Your task to perform on an android device: open app "Spotify" Image 0: 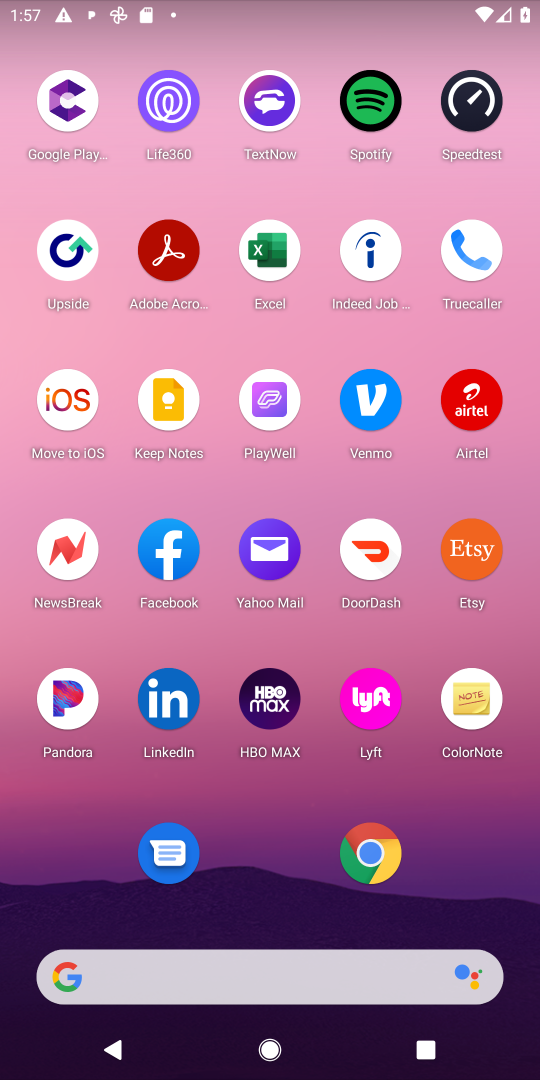
Step 0: drag from (171, 895) to (164, 288)
Your task to perform on an android device: open app "Spotify" Image 1: 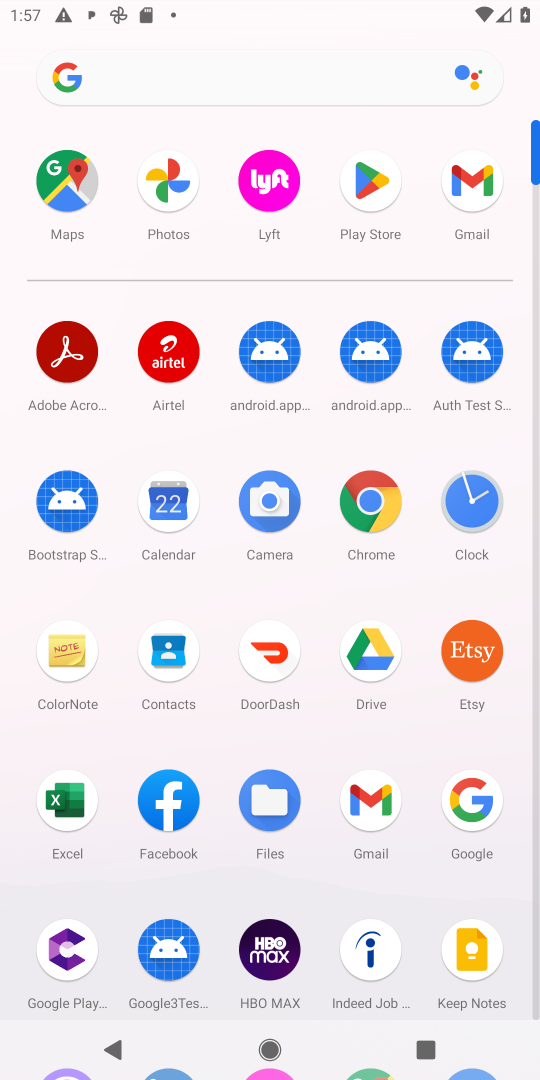
Step 1: click (360, 153)
Your task to perform on an android device: open app "Spotify" Image 2: 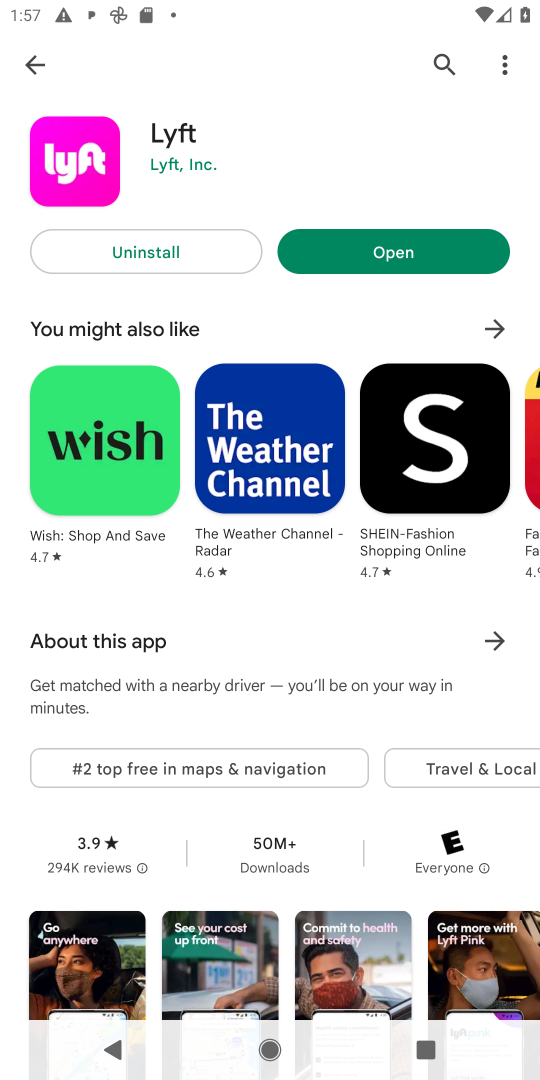
Step 2: click (17, 73)
Your task to perform on an android device: open app "Spotify" Image 3: 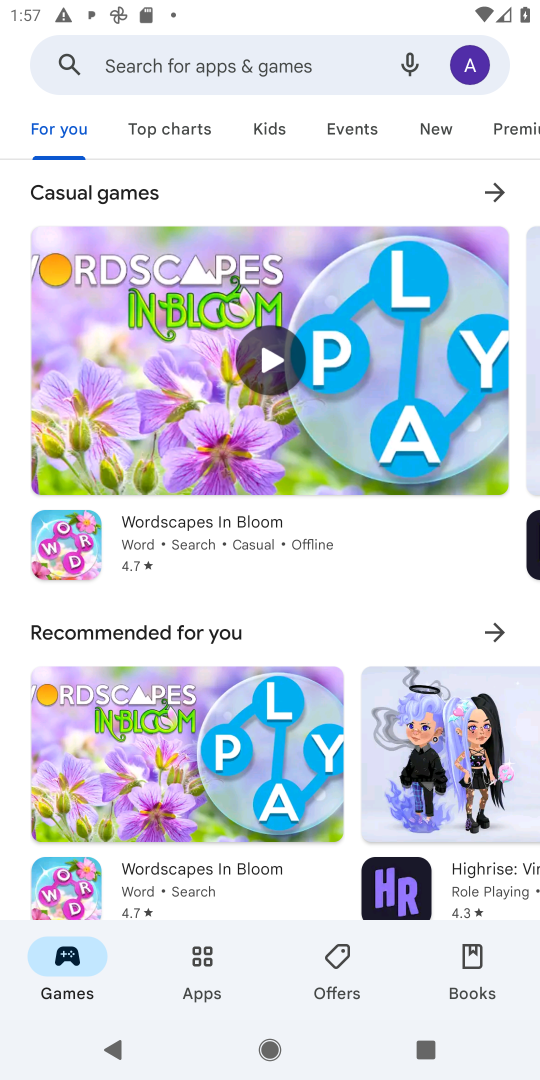
Step 3: click (213, 63)
Your task to perform on an android device: open app "Spotify" Image 4: 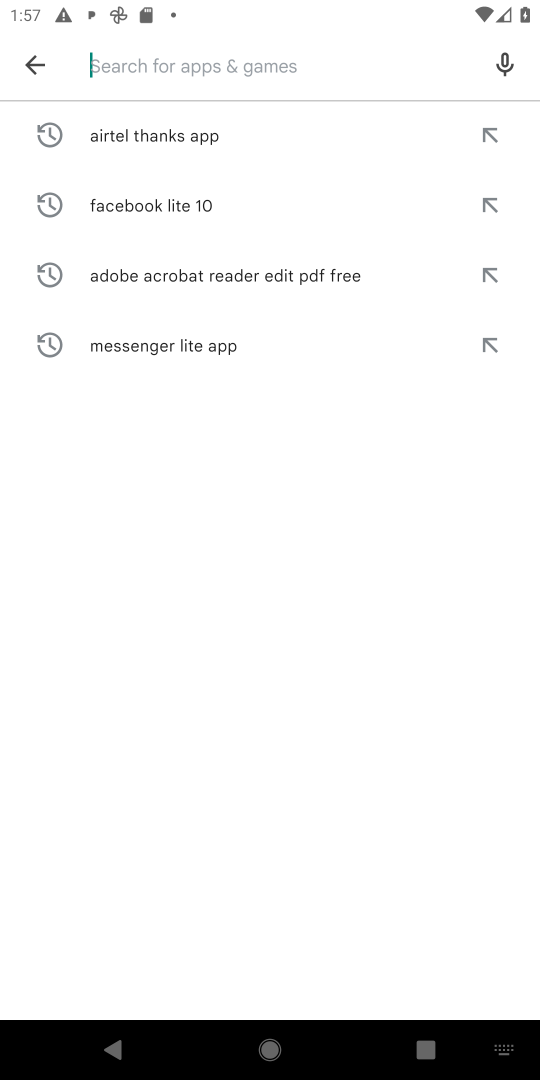
Step 4: type "Spotify "
Your task to perform on an android device: open app "Spotify" Image 5: 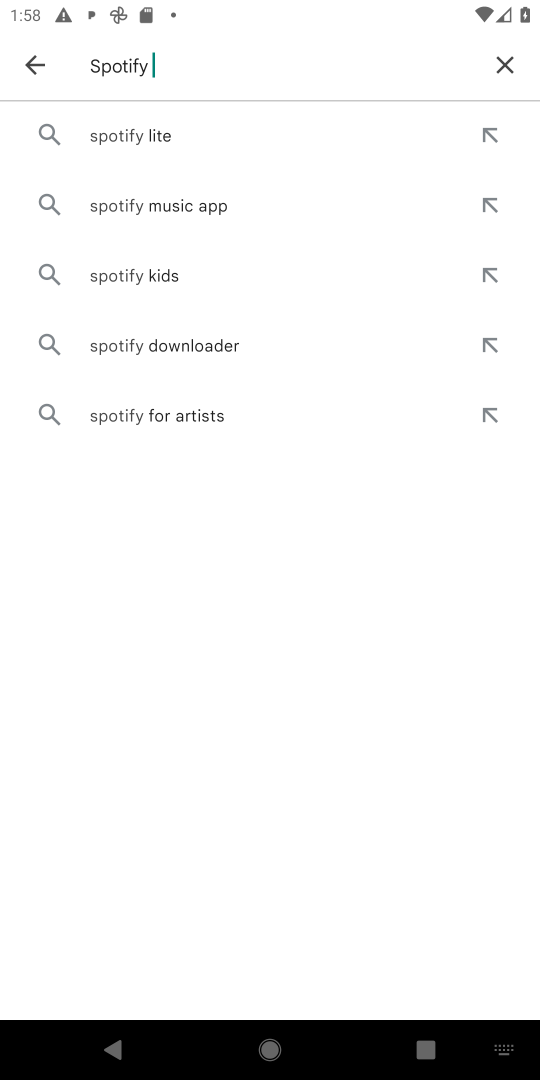
Step 5: drag from (178, 262) to (3, 194)
Your task to perform on an android device: open app "Spotify" Image 6: 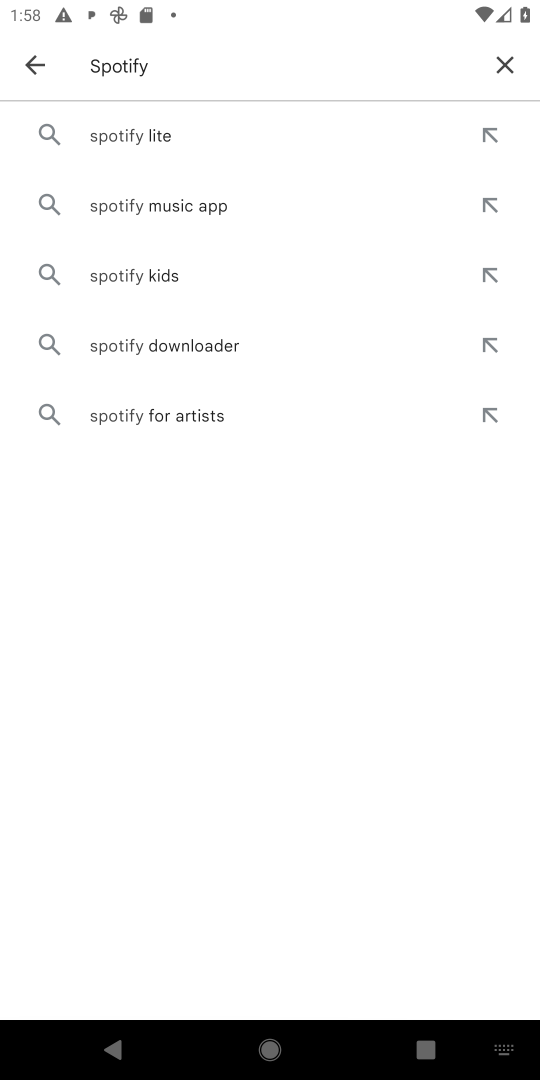
Step 6: click (108, 200)
Your task to perform on an android device: open app "Spotify" Image 7: 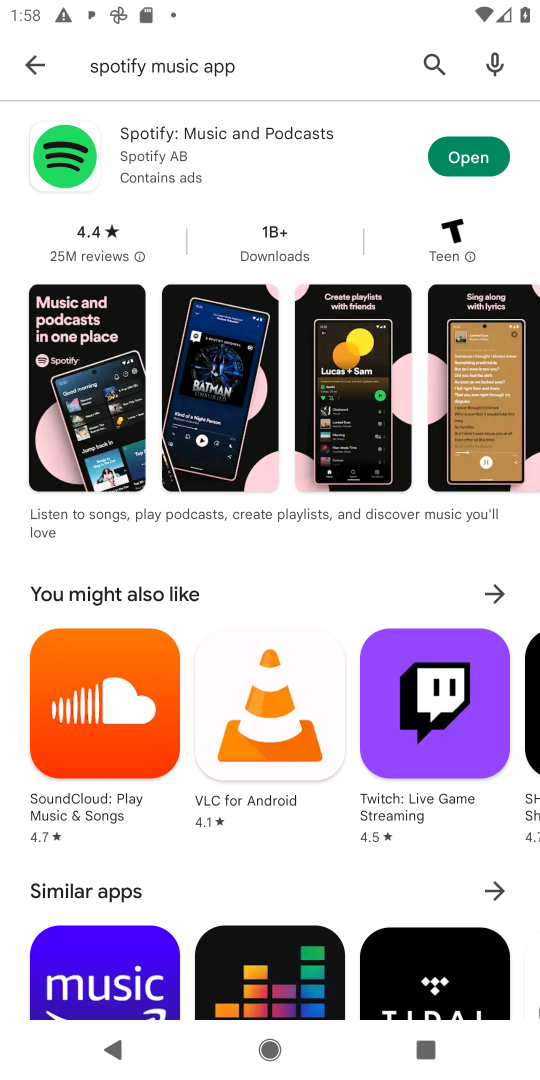
Step 7: click (483, 148)
Your task to perform on an android device: open app "Spotify" Image 8: 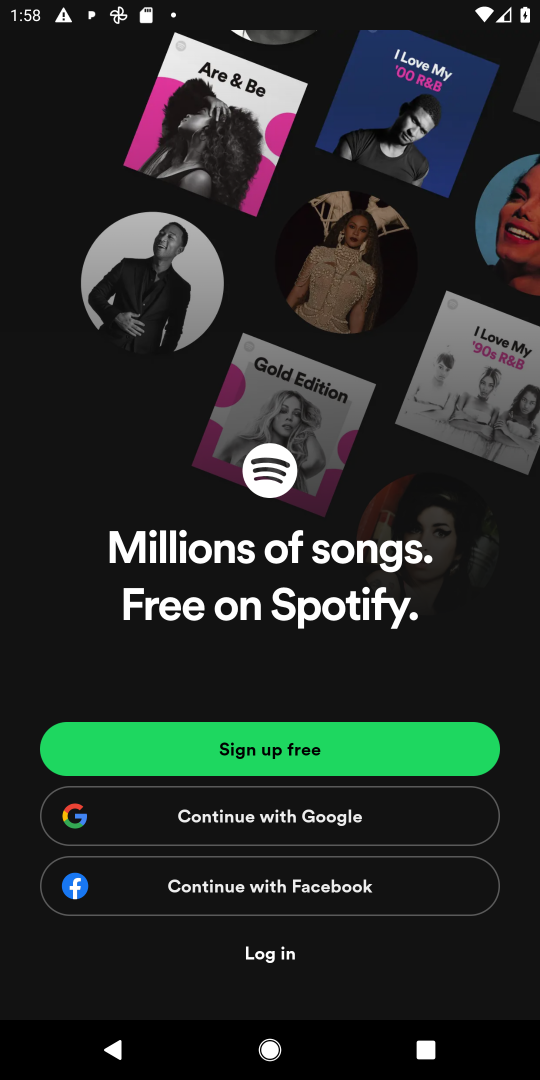
Step 8: task complete